Your task to perform on an android device: turn off location Image 0: 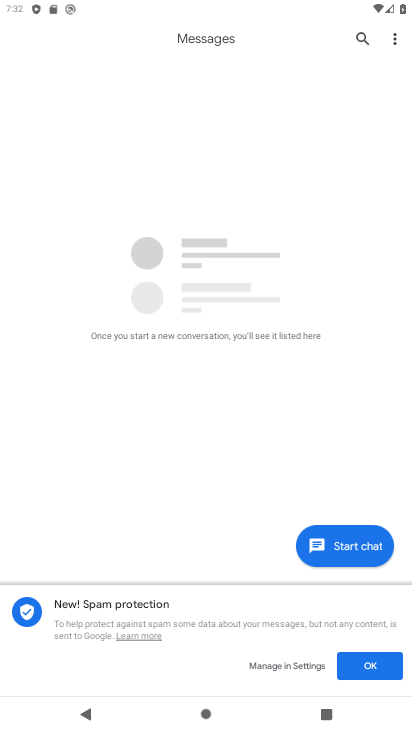
Step 0: press home button
Your task to perform on an android device: turn off location Image 1: 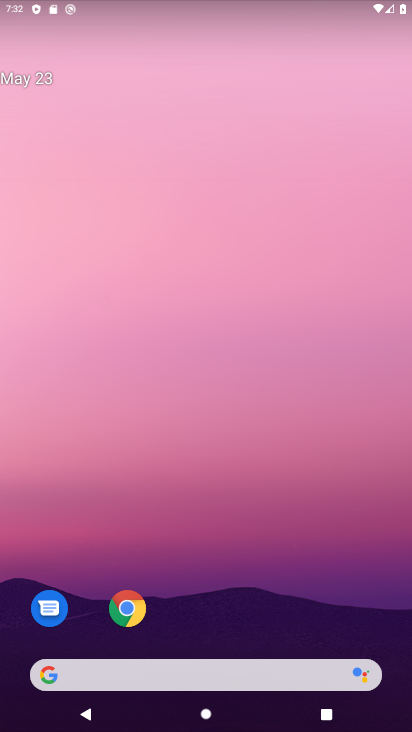
Step 1: drag from (169, 622) to (256, 304)
Your task to perform on an android device: turn off location Image 2: 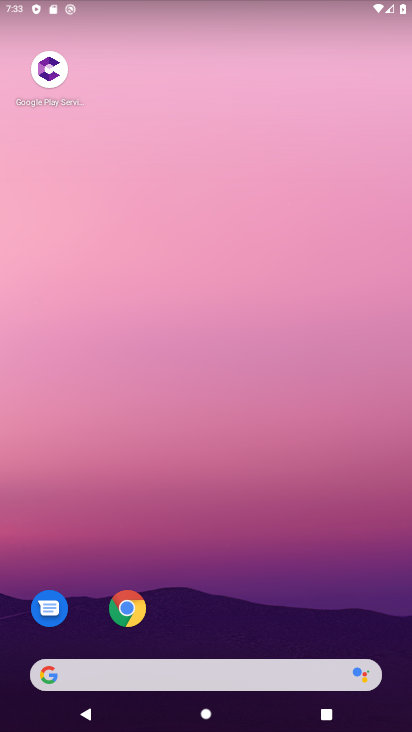
Step 2: drag from (232, 663) to (369, 136)
Your task to perform on an android device: turn off location Image 3: 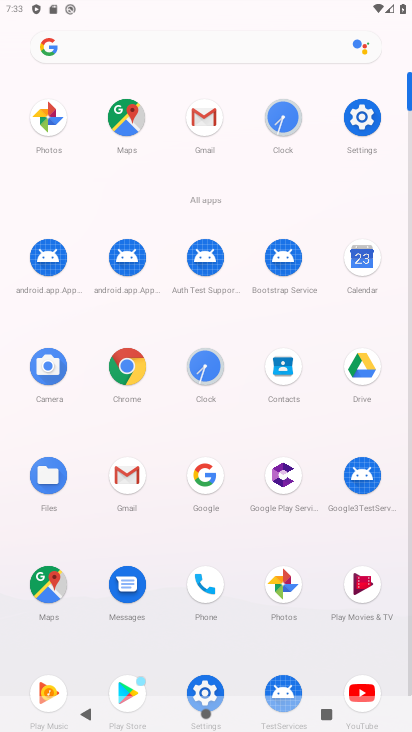
Step 3: click (203, 689)
Your task to perform on an android device: turn off location Image 4: 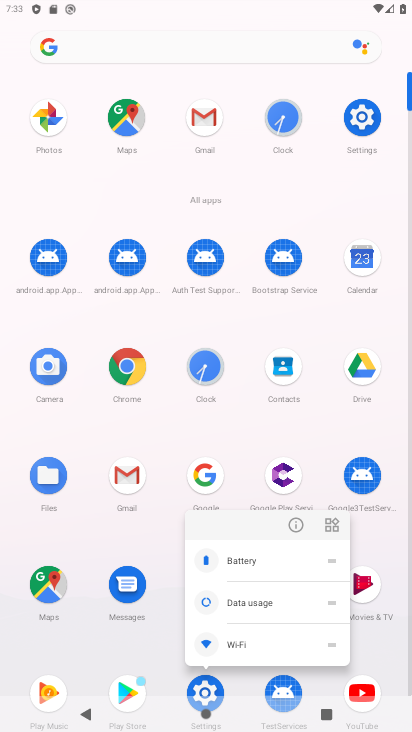
Step 4: click (199, 682)
Your task to perform on an android device: turn off location Image 5: 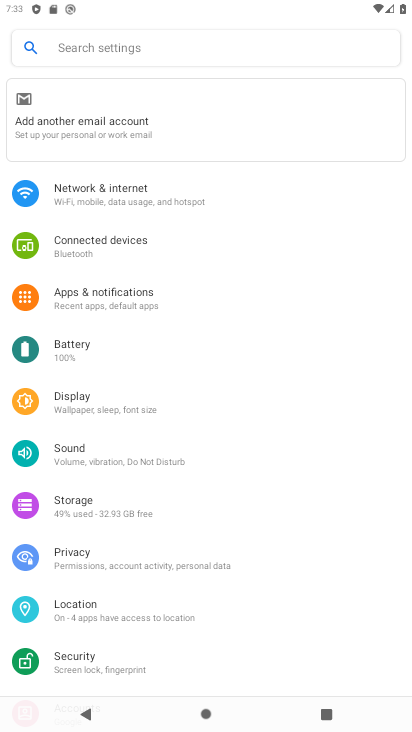
Step 5: drag from (199, 615) to (270, 277)
Your task to perform on an android device: turn off location Image 6: 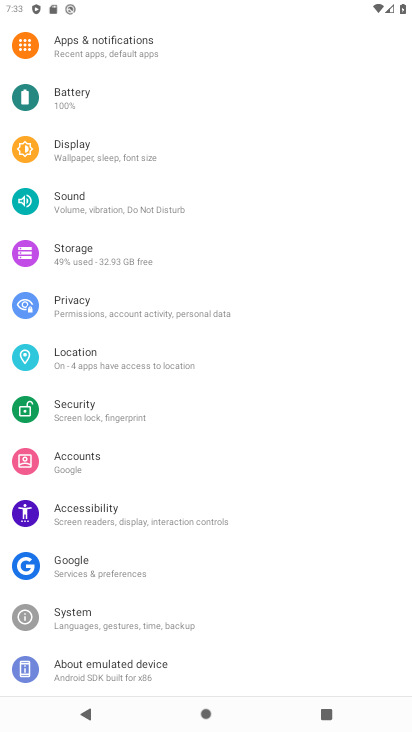
Step 6: click (119, 349)
Your task to perform on an android device: turn off location Image 7: 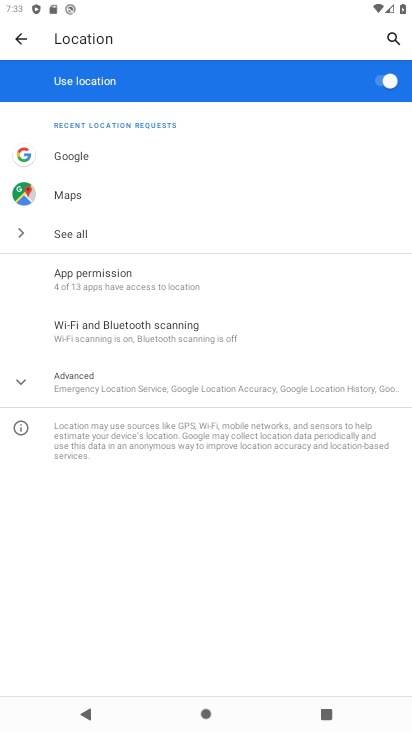
Step 7: click (369, 65)
Your task to perform on an android device: turn off location Image 8: 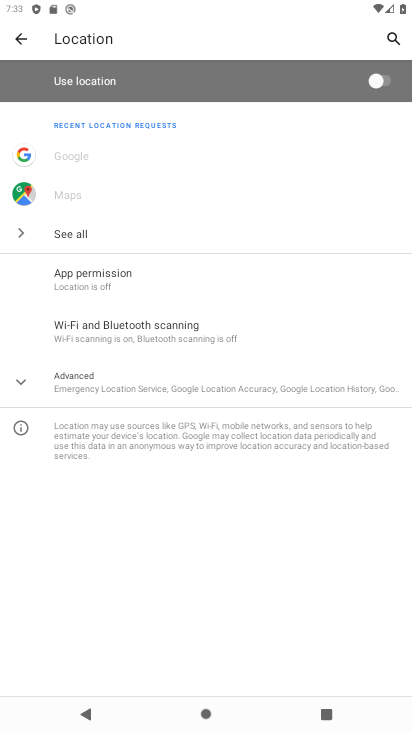
Step 8: task complete